Your task to perform on an android device: open a new tab in the chrome app Image 0: 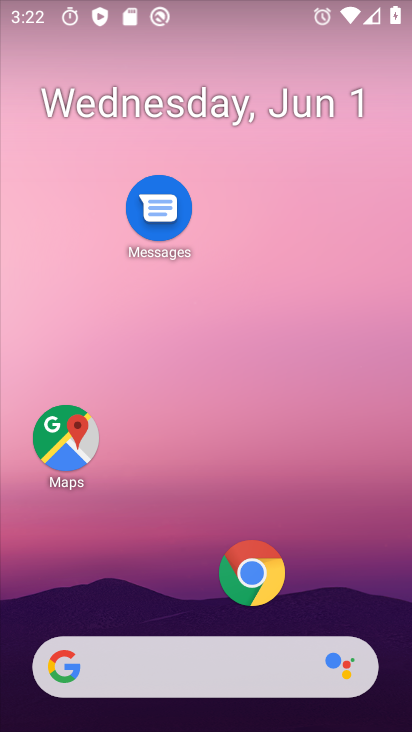
Step 0: click (245, 589)
Your task to perform on an android device: open a new tab in the chrome app Image 1: 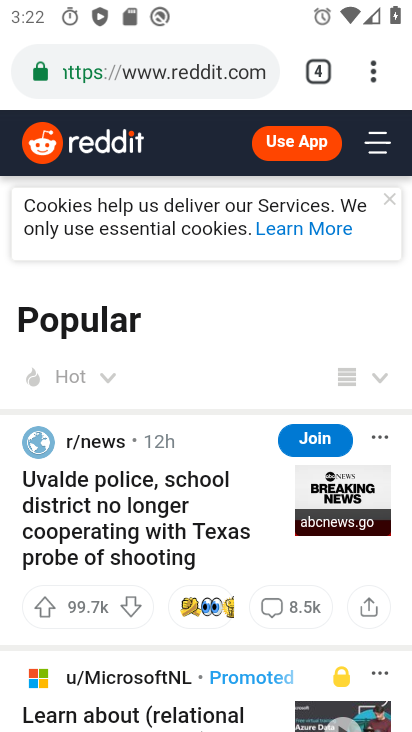
Step 1: click (310, 89)
Your task to perform on an android device: open a new tab in the chrome app Image 2: 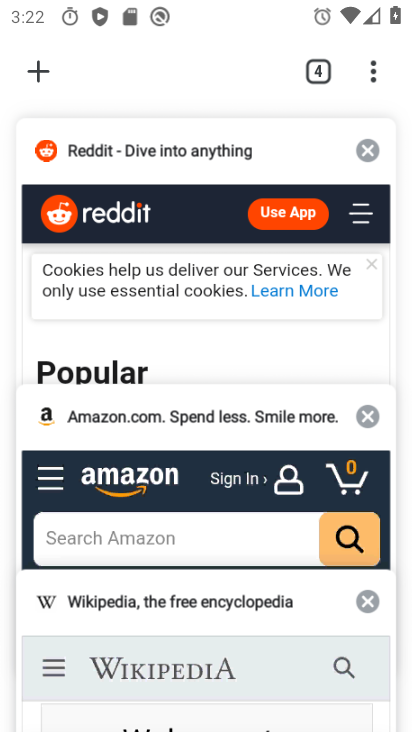
Step 2: click (47, 65)
Your task to perform on an android device: open a new tab in the chrome app Image 3: 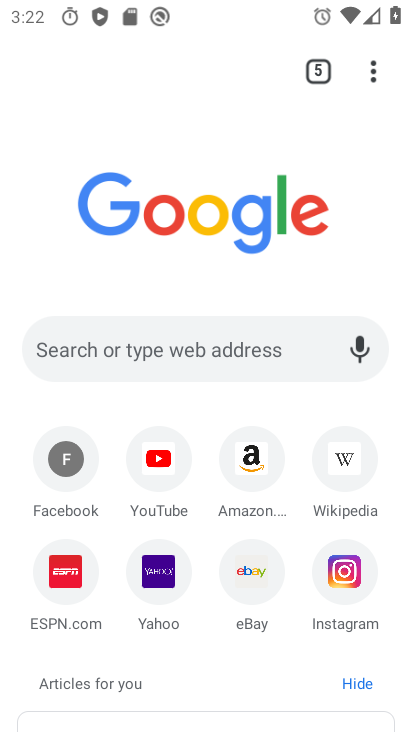
Step 3: task complete